Your task to perform on an android device: Open calendar and show me the second week of next month Image 0: 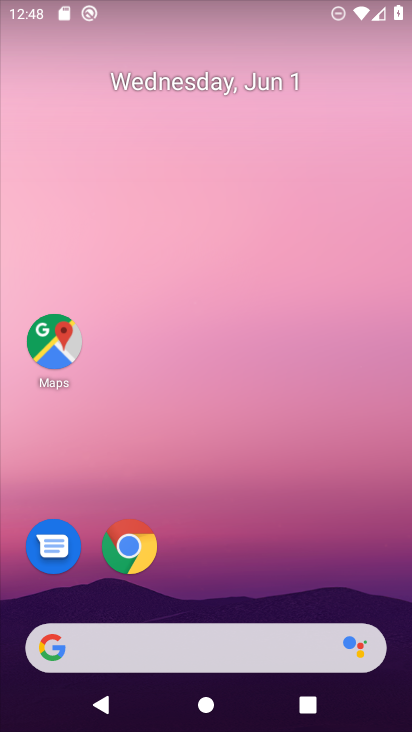
Step 0: drag from (259, 582) to (153, 226)
Your task to perform on an android device: Open calendar and show me the second week of next month Image 1: 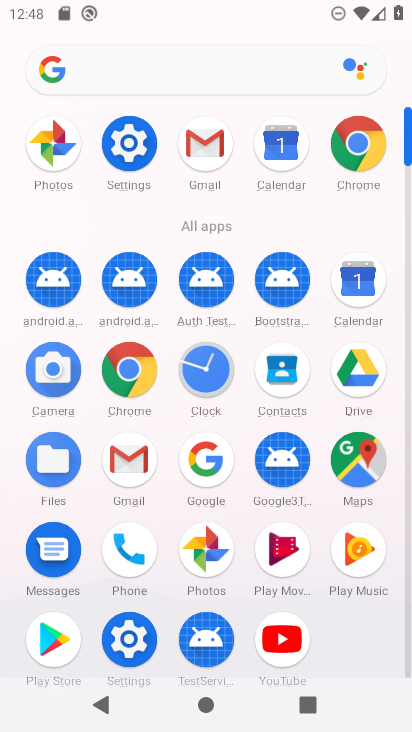
Step 1: click (280, 163)
Your task to perform on an android device: Open calendar and show me the second week of next month Image 2: 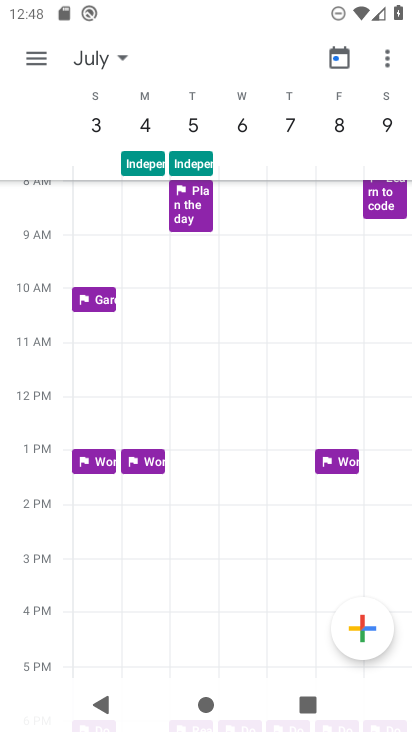
Step 2: task complete